Your task to perform on an android device: Go to Amazon Image 0: 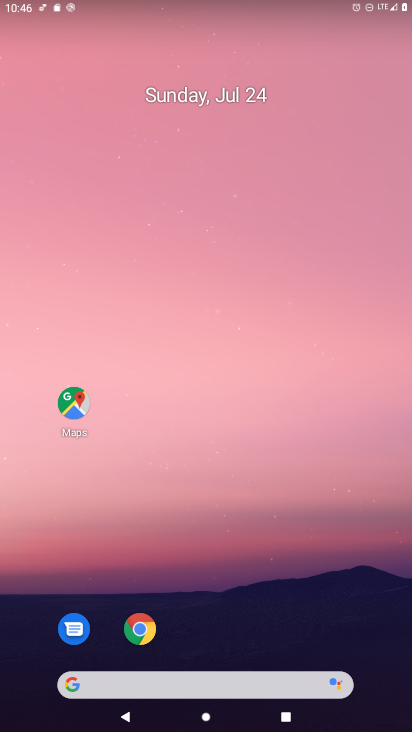
Step 0: drag from (335, 625) to (199, 4)
Your task to perform on an android device: Go to Amazon Image 1: 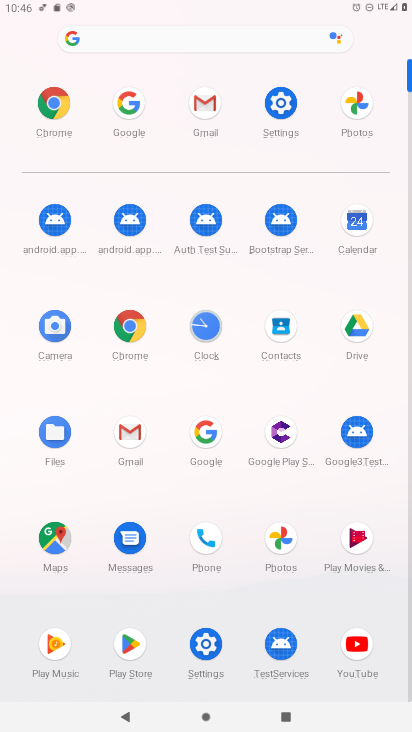
Step 1: click (205, 441)
Your task to perform on an android device: Go to Amazon Image 2: 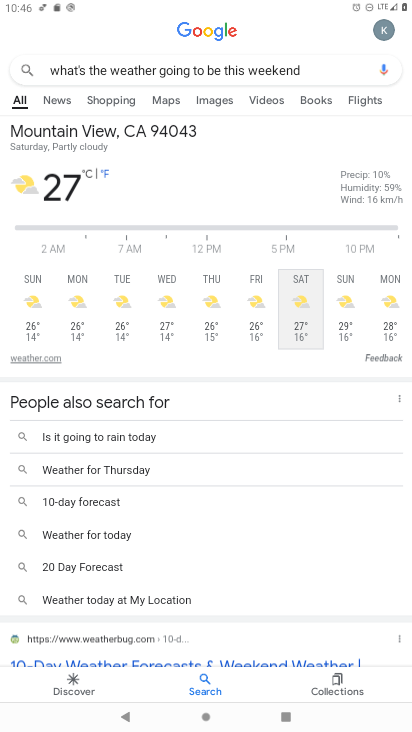
Step 2: press back button
Your task to perform on an android device: Go to Amazon Image 3: 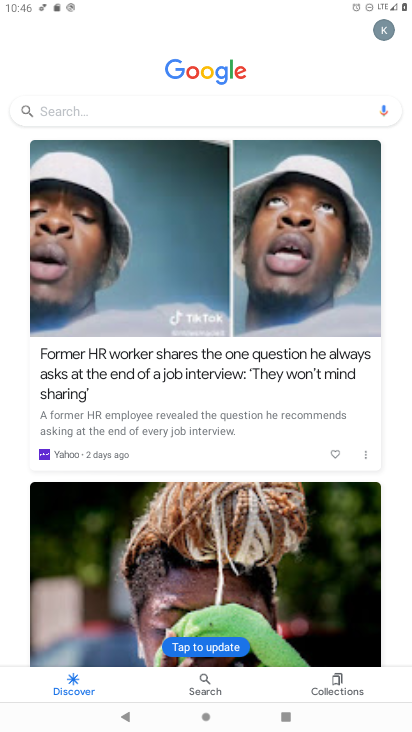
Step 3: click (68, 103)
Your task to perform on an android device: Go to Amazon Image 4: 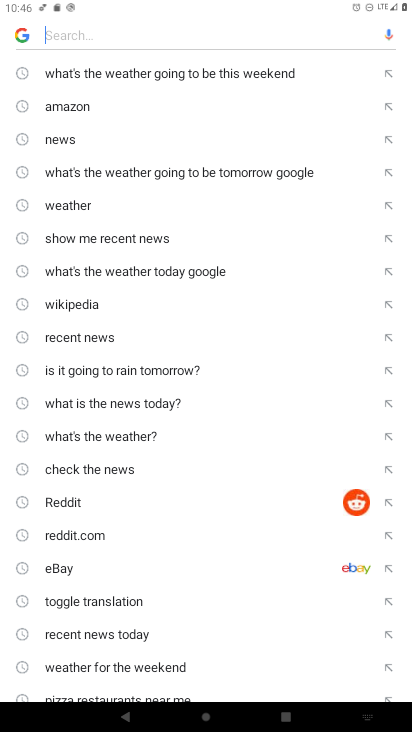
Step 4: click (60, 107)
Your task to perform on an android device: Go to Amazon Image 5: 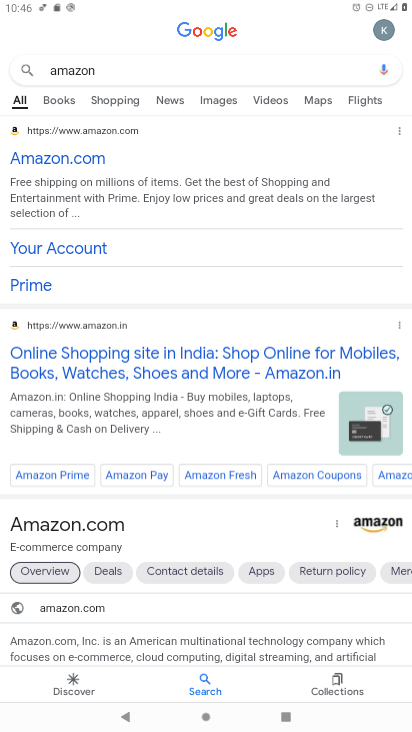
Step 5: task complete